Your task to perform on an android device: turn off data saver in the chrome app Image 0: 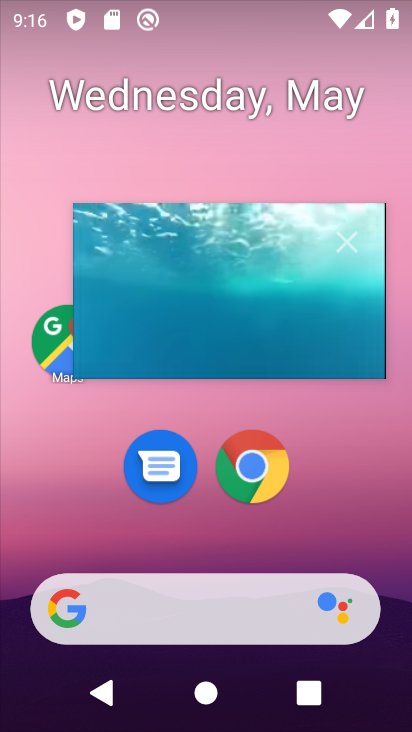
Step 0: click (343, 236)
Your task to perform on an android device: turn off data saver in the chrome app Image 1: 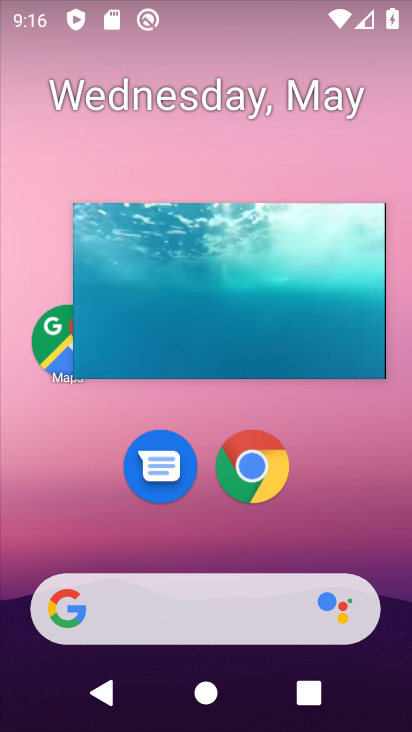
Step 1: click (343, 236)
Your task to perform on an android device: turn off data saver in the chrome app Image 2: 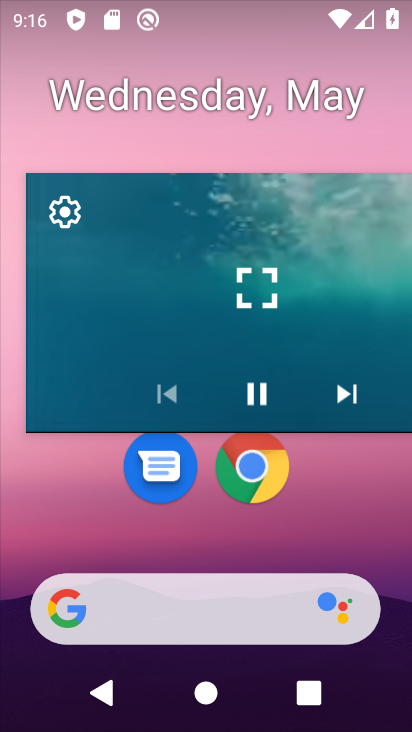
Step 2: click (128, 117)
Your task to perform on an android device: turn off data saver in the chrome app Image 3: 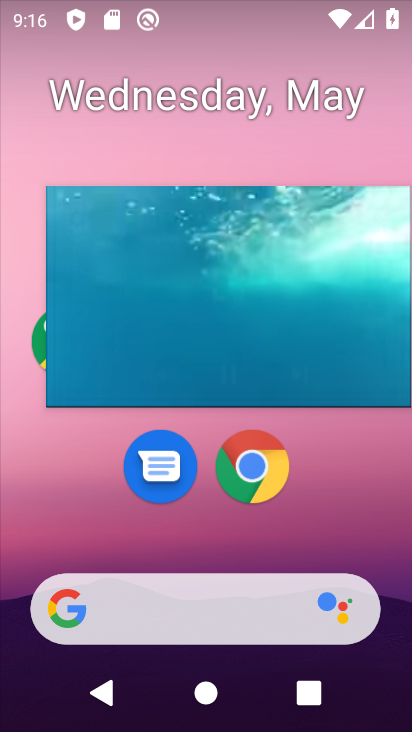
Step 3: click (128, 122)
Your task to perform on an android device: turn off data saver in the chrome app Image 4: 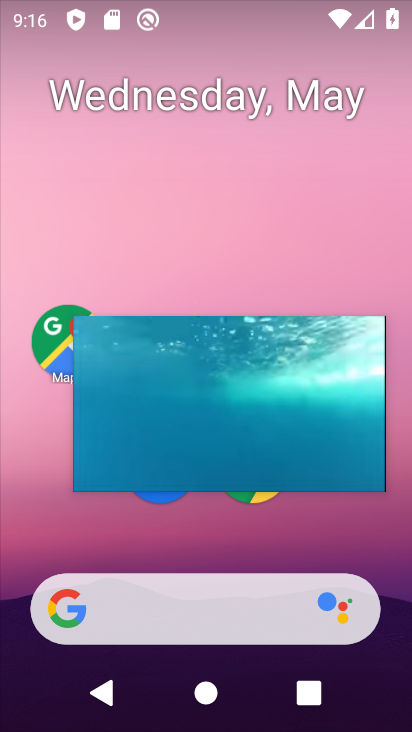
Step 4: click (130, 123)
Your task to perform on an android device: turn off data saver in the chrome app Image 5: 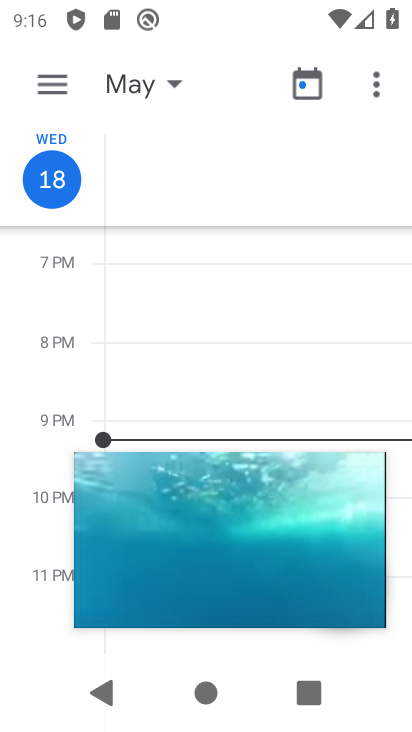
Step 5: click (363, 468)
Your task to perform on an android device: turn off data saver in the chrome app Image 6: 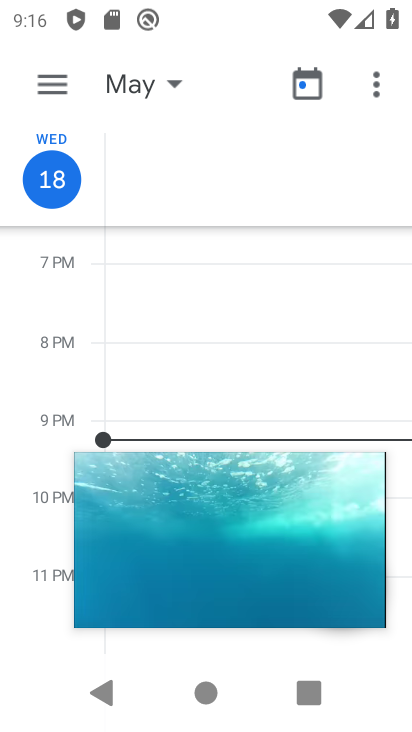
Step 6: click (366, 466)
Your task to perform on an android device: turn off data saver in the chrome app Image 7: 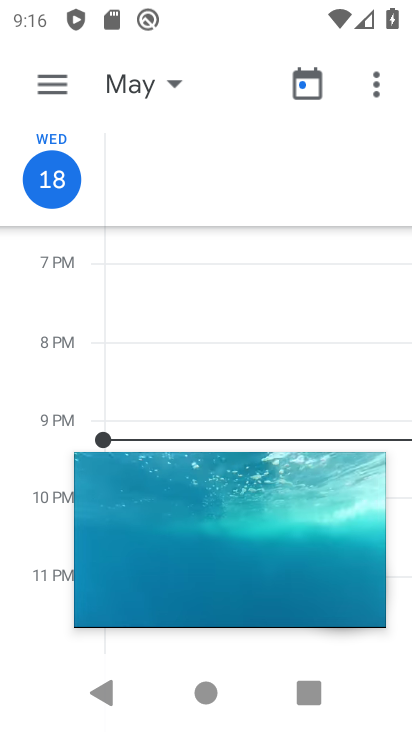
Step 7: click (204, 551)
Your task to perform on an android device: turn off data saver in the chrome app Image 8: 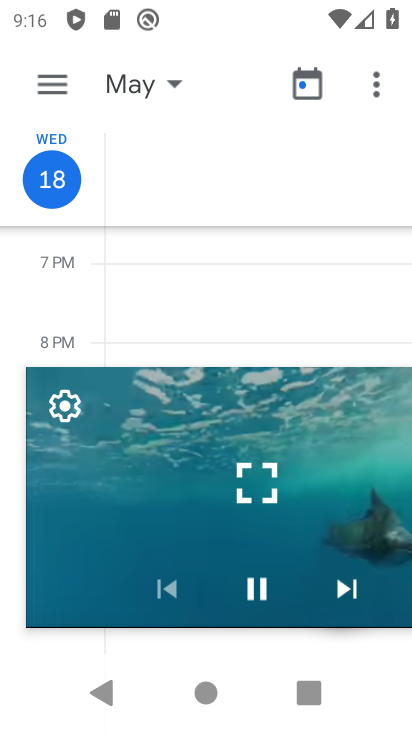
Step 8: click (319, 394)
Your task to perform on an android device: turn off data saver in the chrome app Image 9: 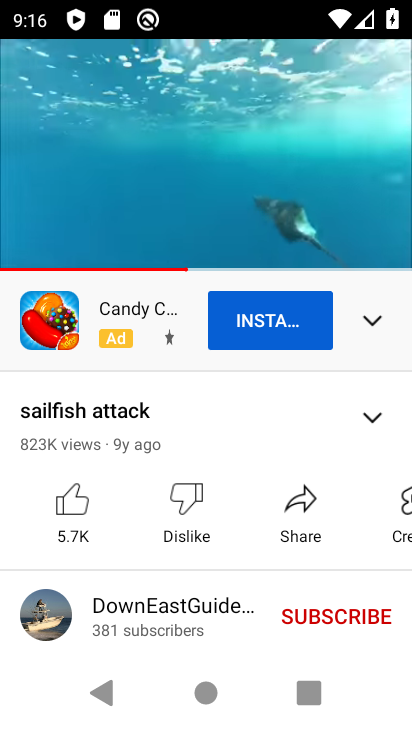
Step 9: press back button
Your task to perform on an android device: turn off data saver in the chrome app Image 10: 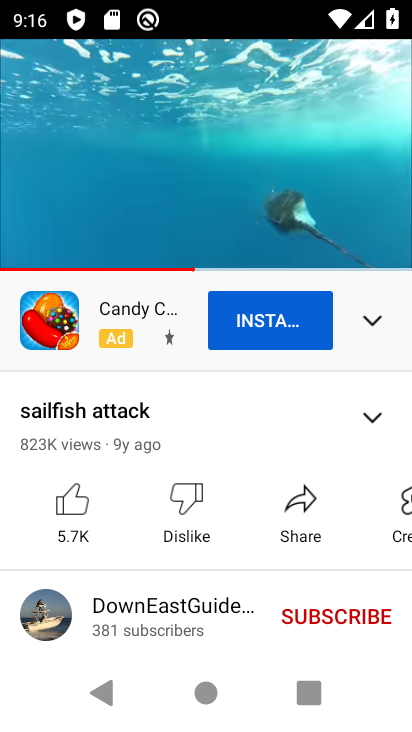
Step 10: press back button
Your task to perform on an android device: turn off data saver in the chrome app Image 11: 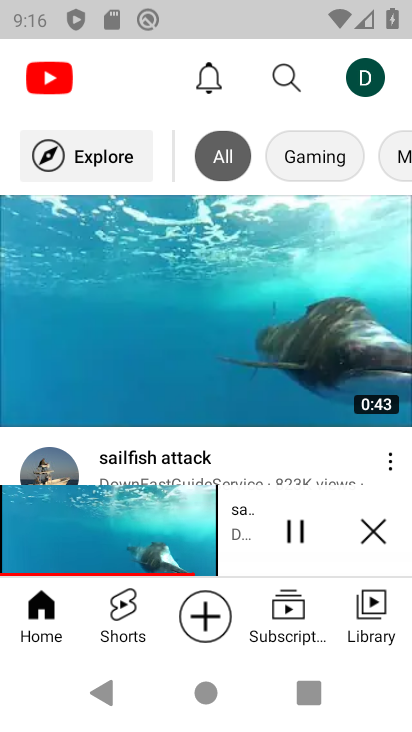
Step 11: press back button
Your task to perform on an android device: turn off data saver in the chrome app Image 12: 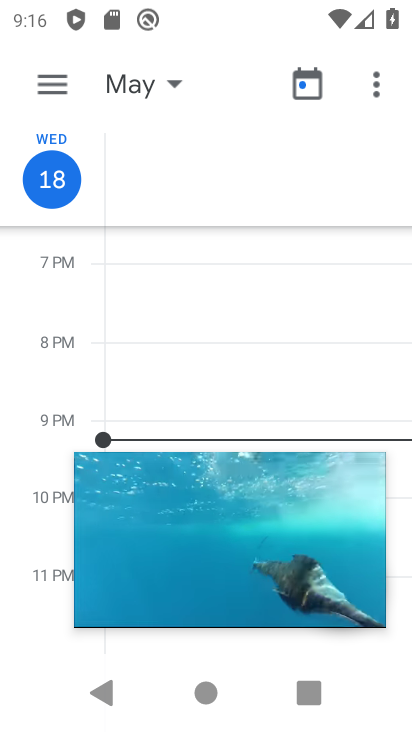
Step 12: click (233, 418)
Your task to perform on an android device: turn off data saver in the chrome app Image 13: 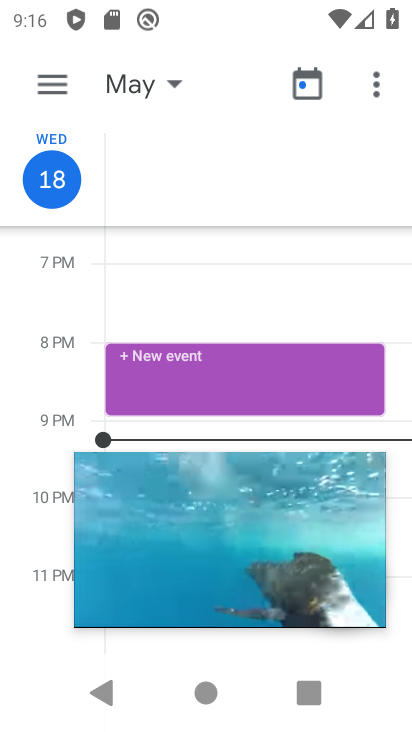
Step 13: click (348, 467)
Your task to perform on an android device: turn off data saver in the chrome app Image 14: 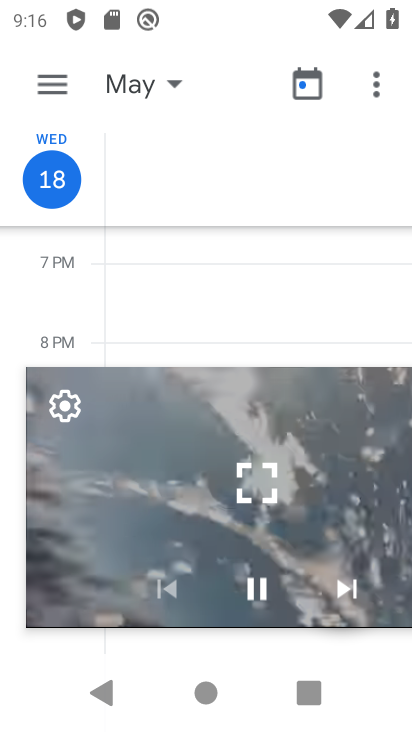
Step 14: click (395, 396)
Your task to perform on an android device: turn off data saver in the chrome app Image 15: 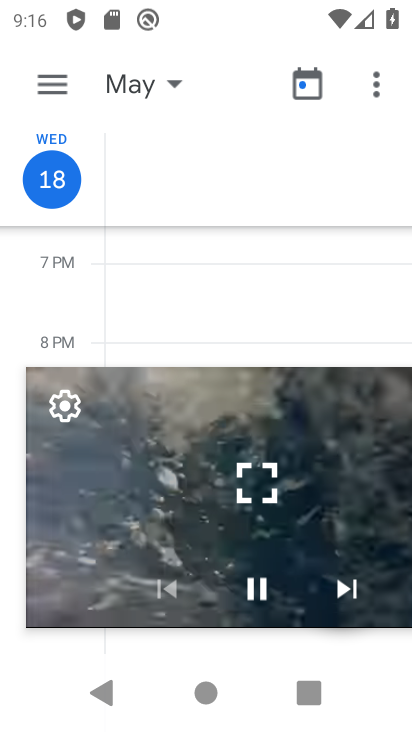
Step 15: click (393, 397)
Your task to perform on an android device: turn off data saver in the chrome app Image 16: 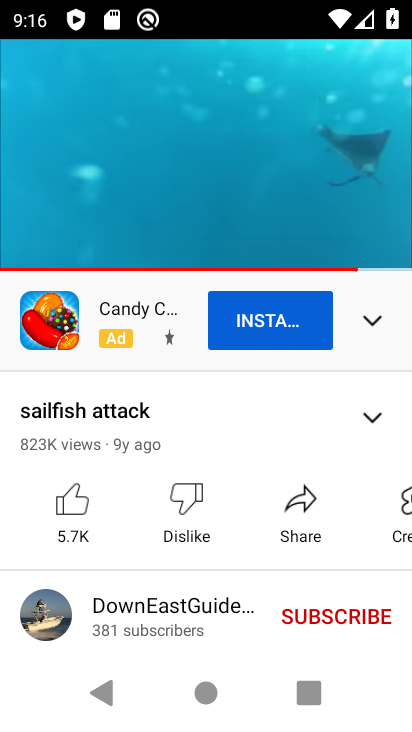
Step 16: press home button
Your task to perform on an android device: turn off data saver in the chrome app Image 17: 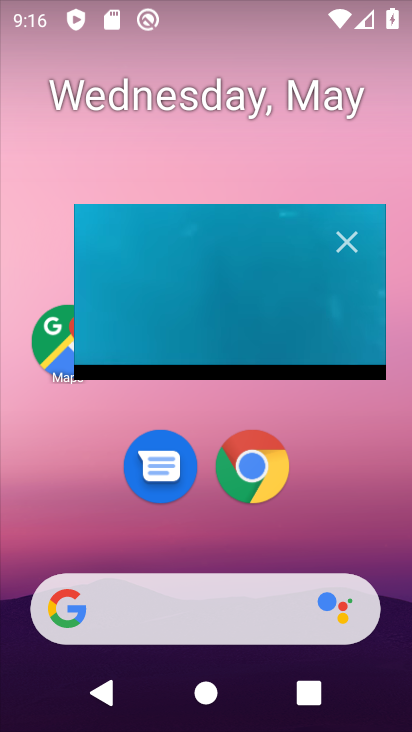
Step 17: click (318, 80)
Your task to perform on an android device: turn off data saver in the chrome app Image 18: 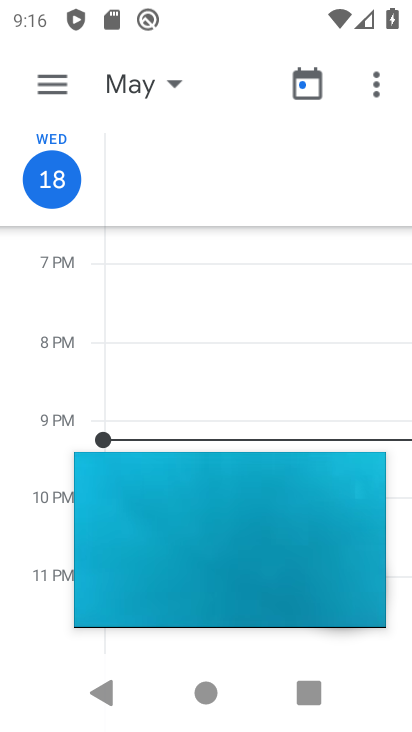
Step 18: click (345, 247)
Your task to perform on an android device: turn off data saver in the chrome app Image 19: 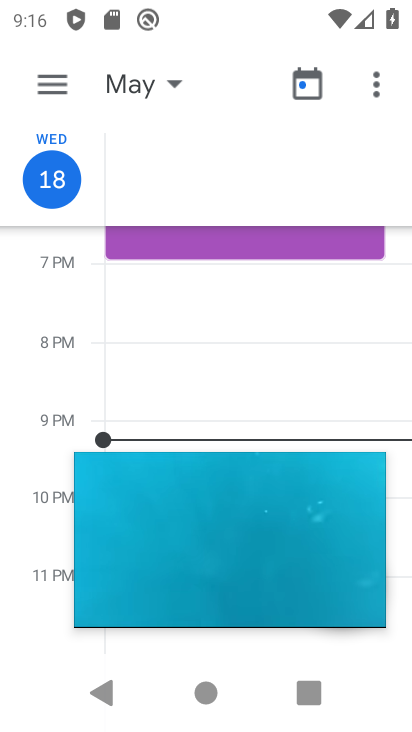
Step 19: click (361, 472)
Your task to perform on an android device: turn off data saver in the chrome app Image 20: 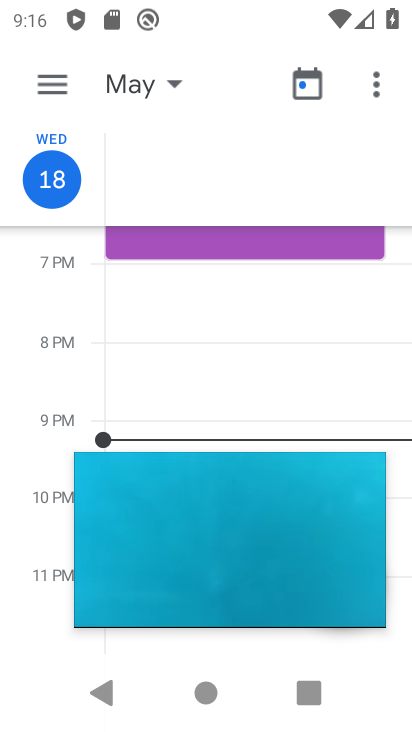
Step 20: click (362, 471)
Your task to perform on an android device: turn off data saver in the chrome app Image 21: 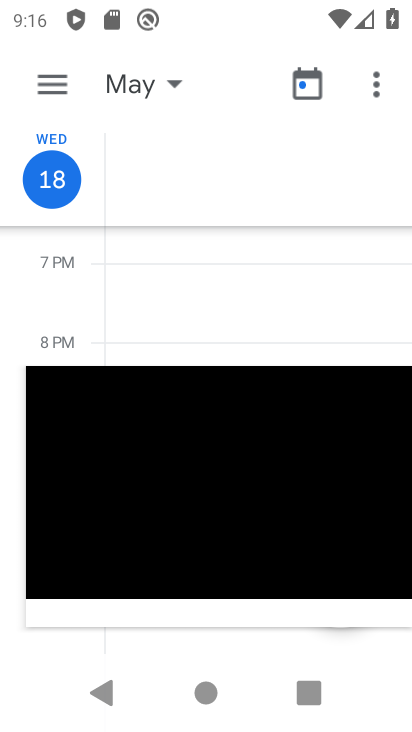
Step 21: click (362, 397)
Your task to perform on an android device: turn off data saver in the chrome app Image 22: 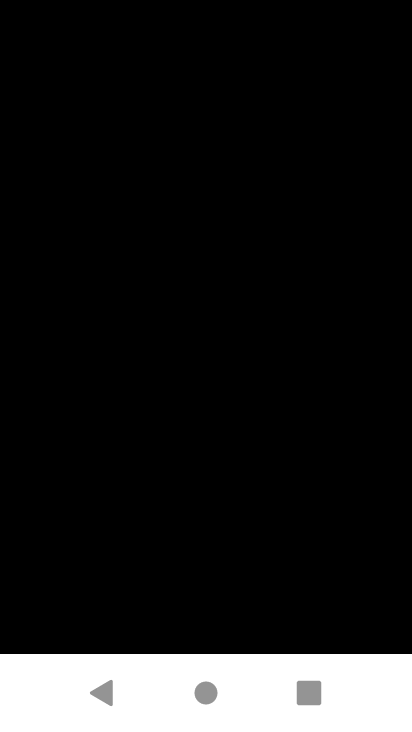
Step 22: click (362, 397)
Your task to perform on an android device: turn off data saver in the chrome app Image 23: 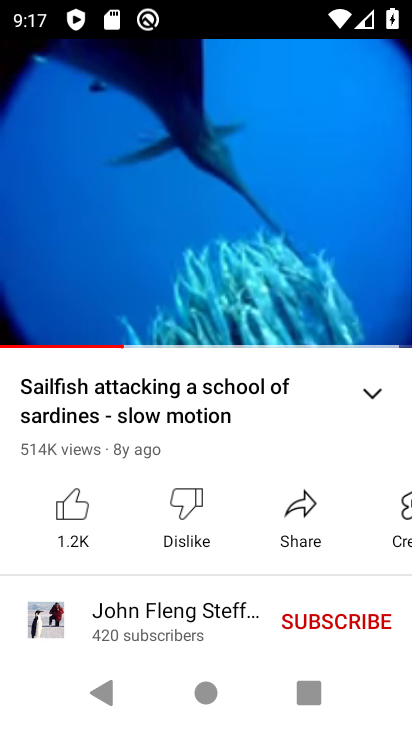
Step 23: click (235, 273)
Your task to perform on an android device: turn off data saver in the chrome app Image 24: 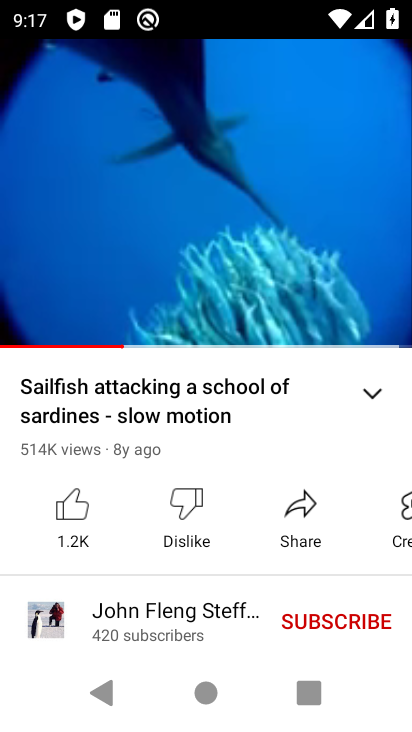
Step 24: click (238, 216)
Your task to perform on an android device: turn off data saver in the chrome app Image 25: 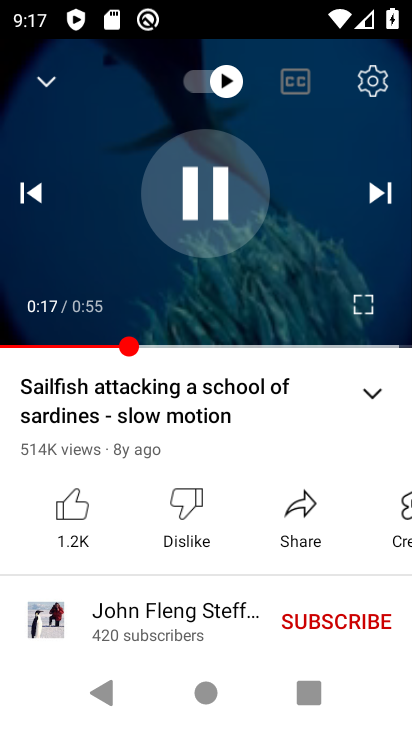
Step 25: click (237, 215)
Your task to perform on an android device: turn off data saver in the chrome app Image 26: 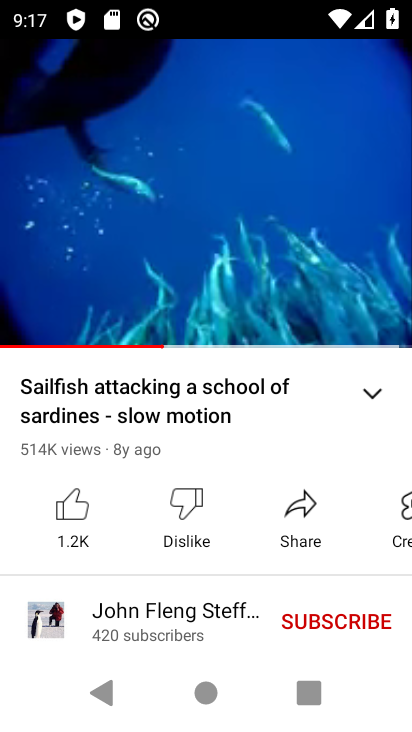
Step 26: press back button
Your task to perform on an android device: turn off data saver in the chrome app Image 27: 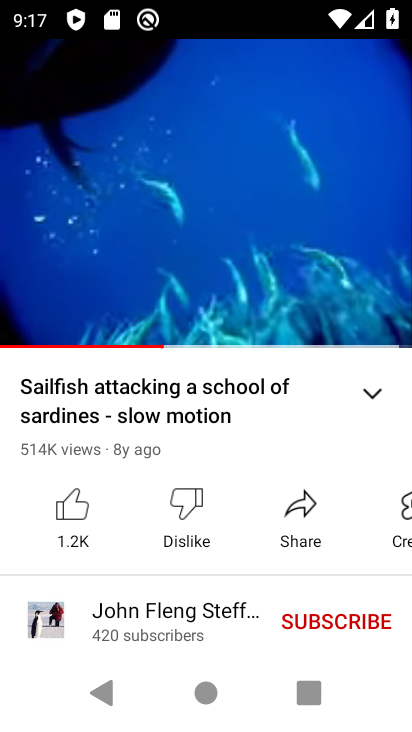
Step 27: press back button
Your task to perform on an android device: turn off data saver in the chrome app Image 28: 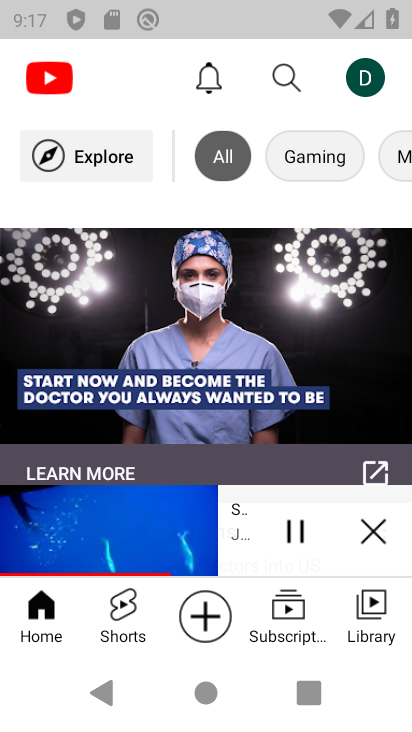
Step 28: press back button
Your task to perform on an android device: turn off data saver in the chrome app Image 29: 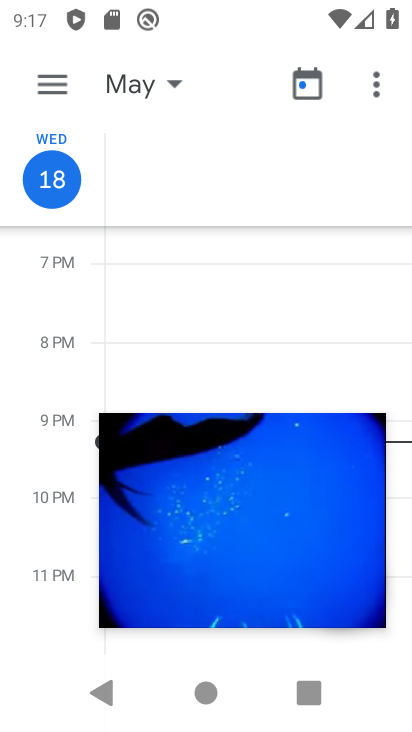
Step 29: click (359, 548)
Your task to perform on an android device: turn off data saver in the chrome app Image 30: 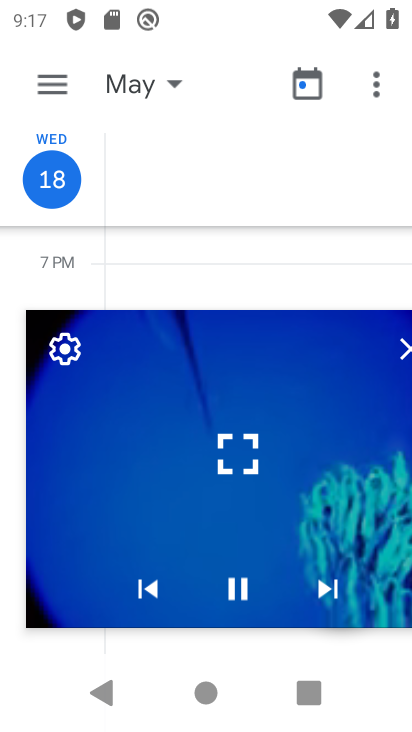
Step 30: click (409, 340)
Your task to perform on an android device: turn off data saver in the chrome app Image 31: 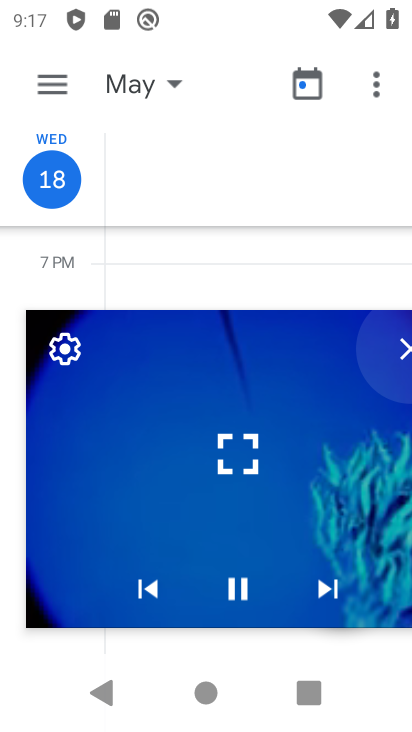
Step 31: click (408, 340)
Your task to perform on an android device: turn off data saver in the chrome app Image 32: 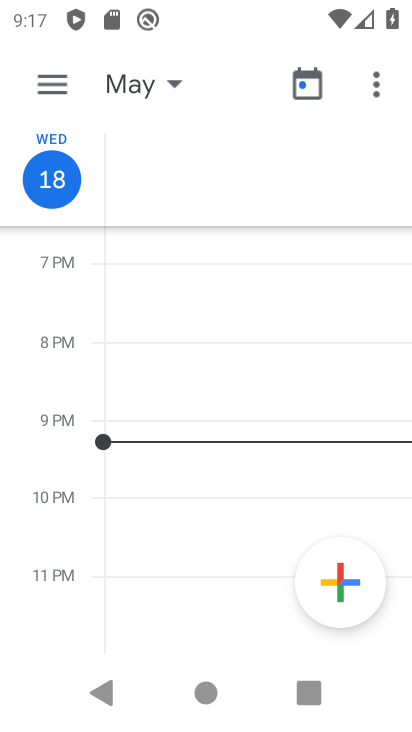
Step 32: press back button
Your task to perform on an android device: turn off data saver in the chrome app Image 33: 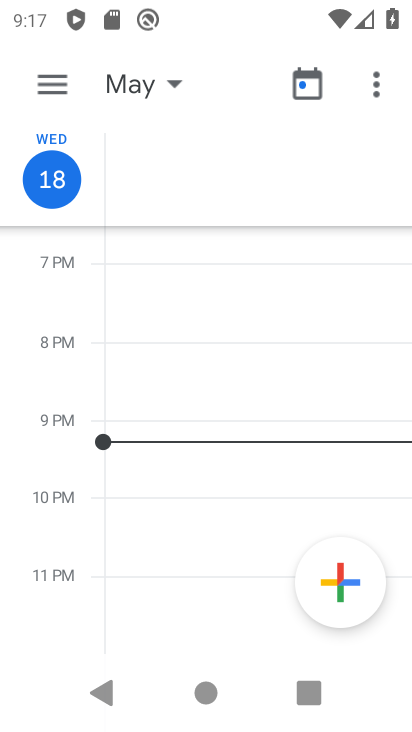
Step 33: press back button
Your task to perform on an android device: turn off data saver in the chrome app Image 34: 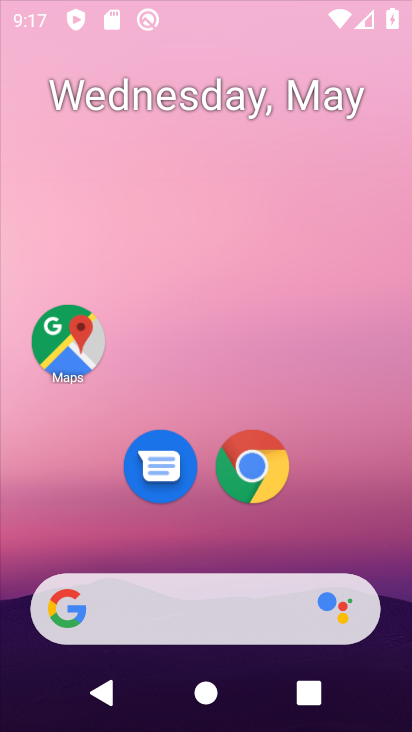
Step 34: press back button
Your task to perform on an android device: turn off data saver in the chrome app Image 35: 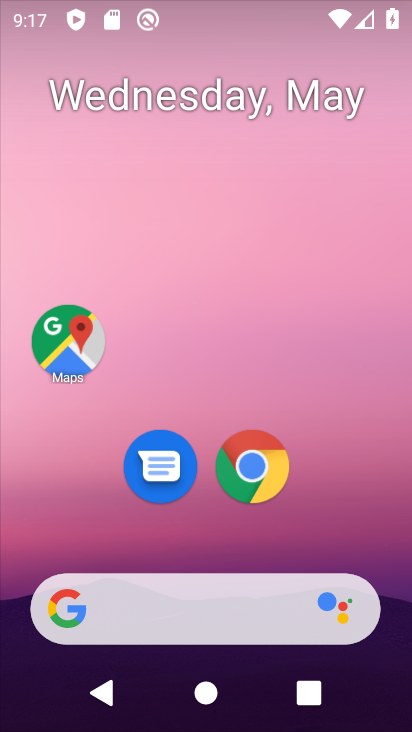
Step 35: press back button
Your task to perform on an android device: turn off data saver in the chrome app Image 36: 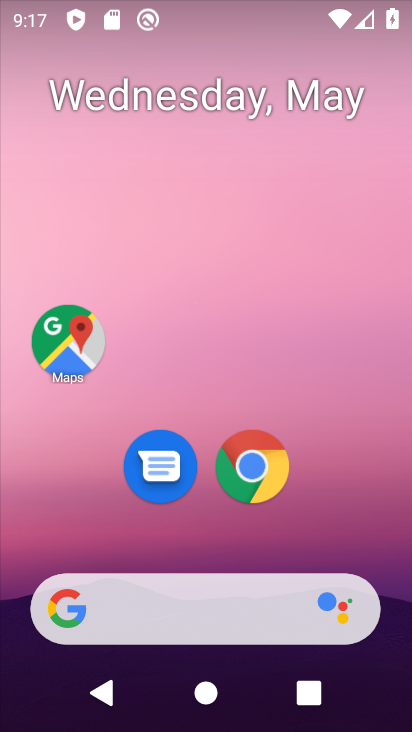
Step 36: drag from (358, 657) to (183, 101)
Your task to perform on an android device: turn off data saver in the chrome app Image 37: 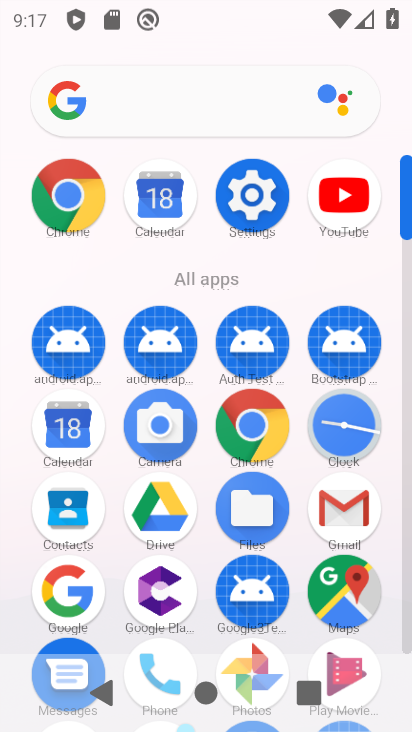
Step 37: click (264, 425)
Your task to perform on an android device: turn off data saver in the chrome app Image 38: 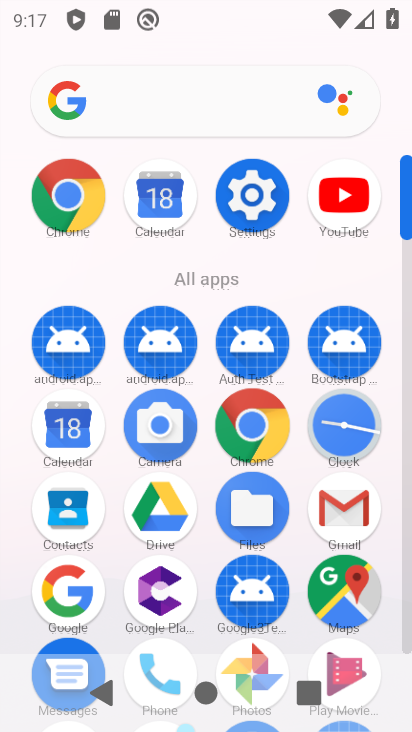
Step 38: click (263, 425)
Your task to perform on an android device: turn off data saver in the chrome app Image 39: 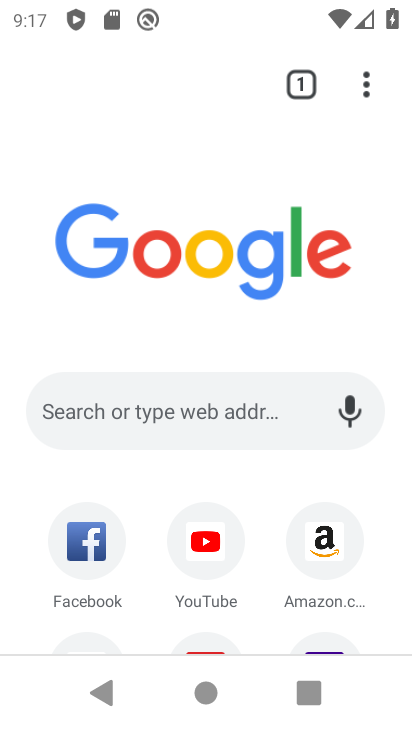
Step 39: click (362, 85)
Your task to perform on an android device: turn off data saver in the chrome app Image 40: 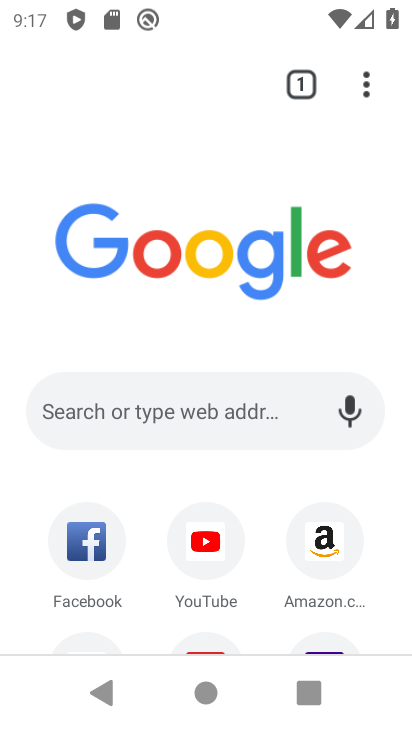
Step 40: drag from (364, 85) to (92, 525)
Your task to perform on an android device: turn off data saver in the chrome app Image 41: 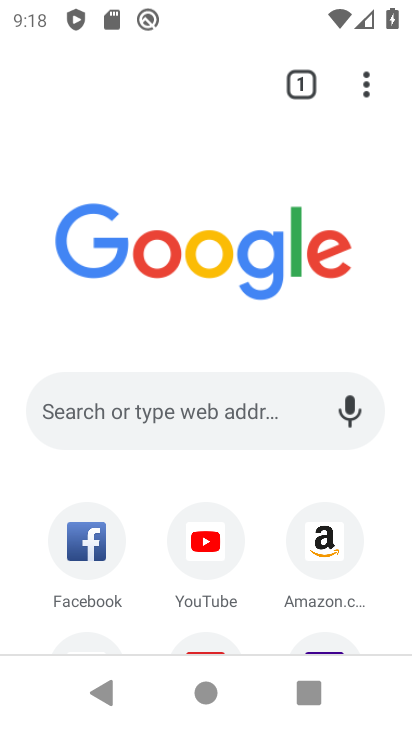
Step 41: click (88, 523)
Your task to perform on an android device: turn off data saver in the chrome app Image 42: 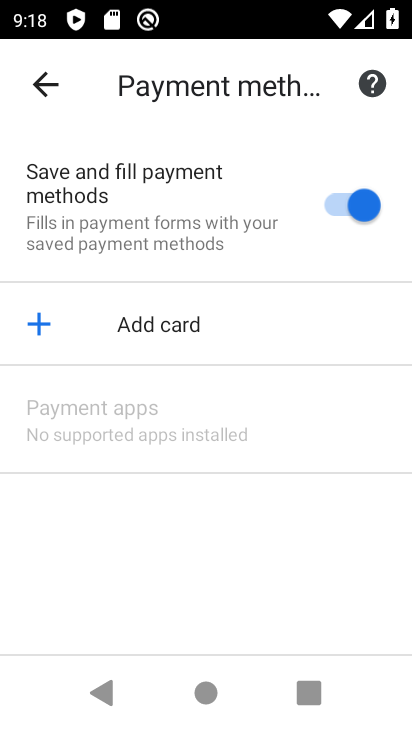
Step 42: click (44, 80)
Your task to perform on an android device: turn off data saver in the chrome app Image 43: 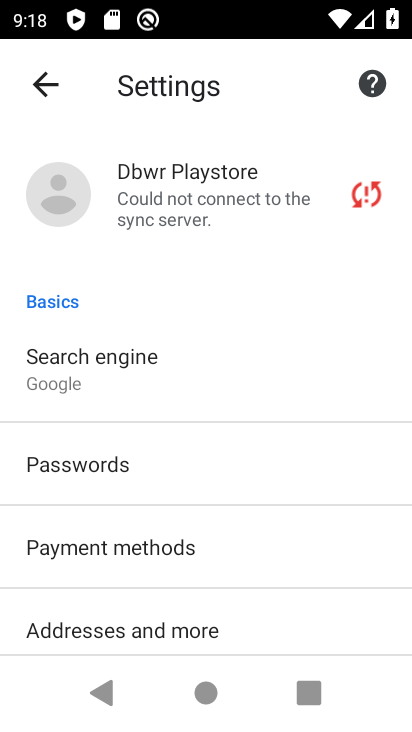
Step 43: drag from (123, 507) to (95, 65)
Your task to perform on an android device: turn off data saver in the chrome app Image 44: 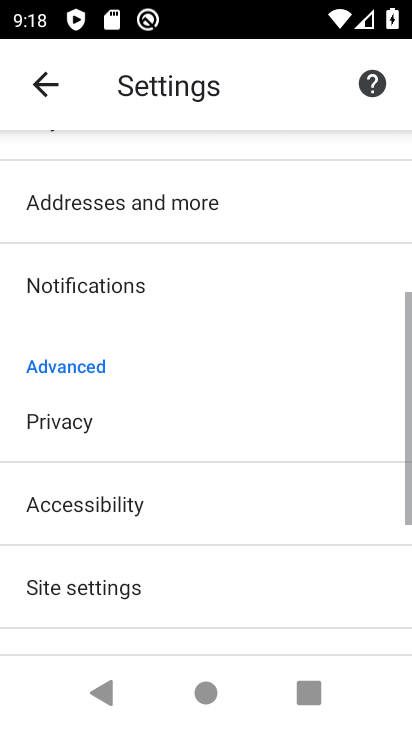
Step 44: drag from (159, 443) to (71, 32)
Your task to perform on an android device: turn off data saver in the chrome app Image 45: 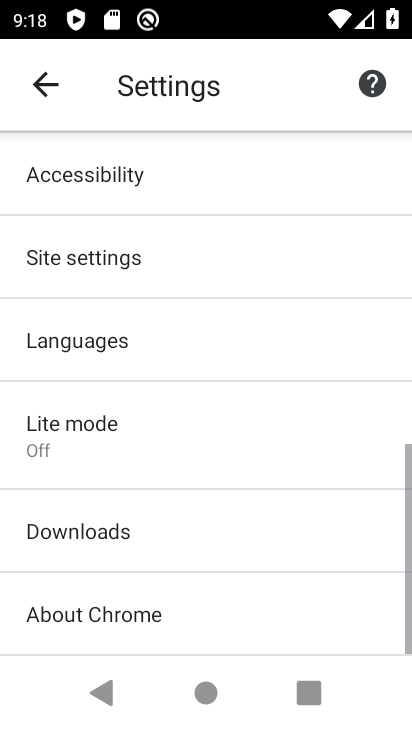
Step 45: drag from (174, 484) to (159, 212)
Your task to perform on an android device: turn off data saver in the chrome app Image 46: 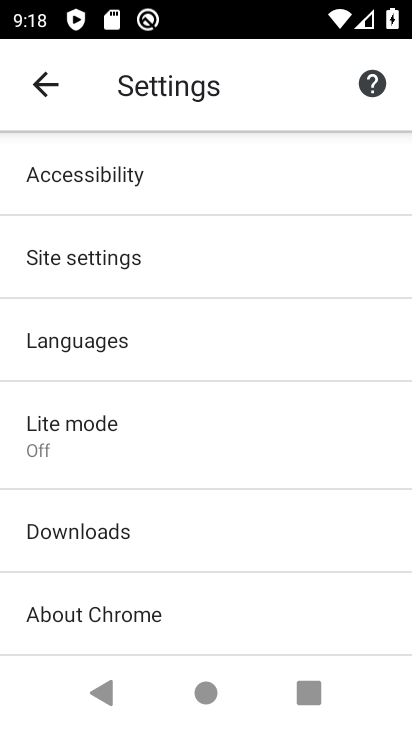
Step 46: drag from (82, 248) to (135, 472)
Your task to perform on an android device: turn off data saver in the chrome app Image 47: 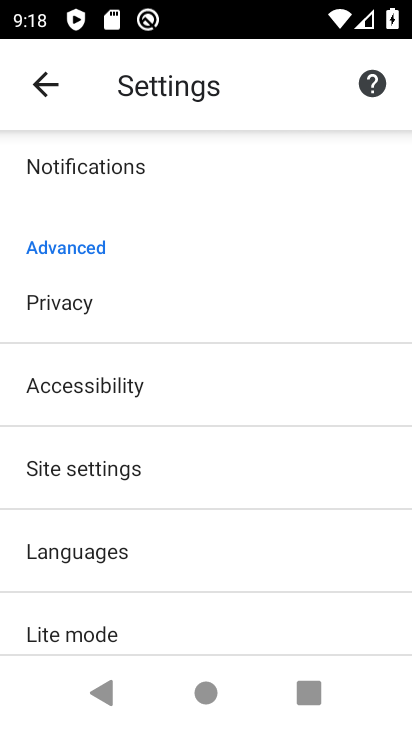
Step 47: drag from (77, 330) to (107, 561)
Your task to perform on an android device: turn off data saver in the chrome app Image 48: 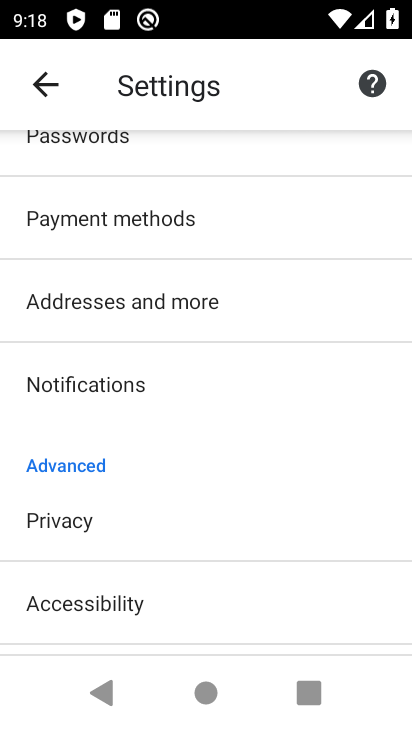
Step 48: drag from (99, 275) to (171, 620)
Your task to perform on an android device: turn off data saver in the chrome app Image 49: 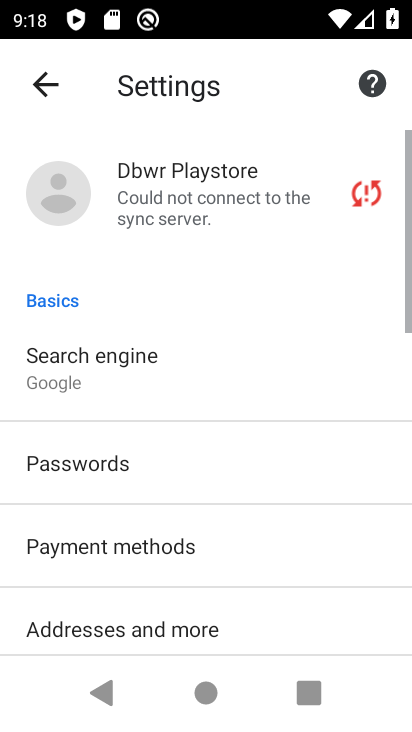
Step 49: drag from (130, 293) to (181, 542)
Your task to perform on an android device: turn off data saver in the chrome app Image 50: 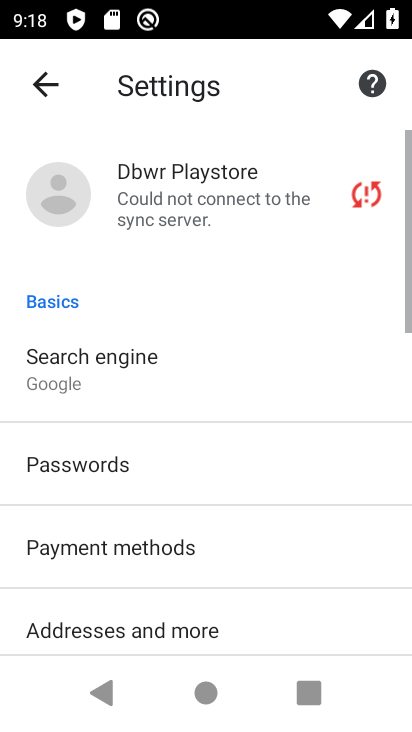
Step 50: drag from (118, 472) to (56, 155)
Your task to perform on an android device: turn off data saver in the chrome app Image 51: 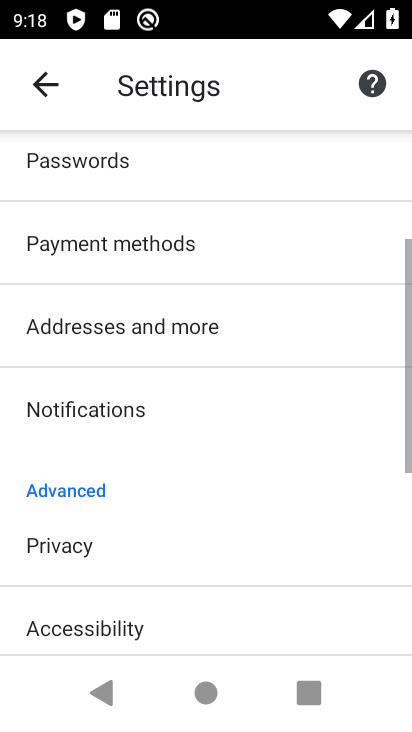
Step 51: drag from (128, 477) to (109, 118)
Your task to perform on an android device: turn off data saver in the chrome app Image 52: 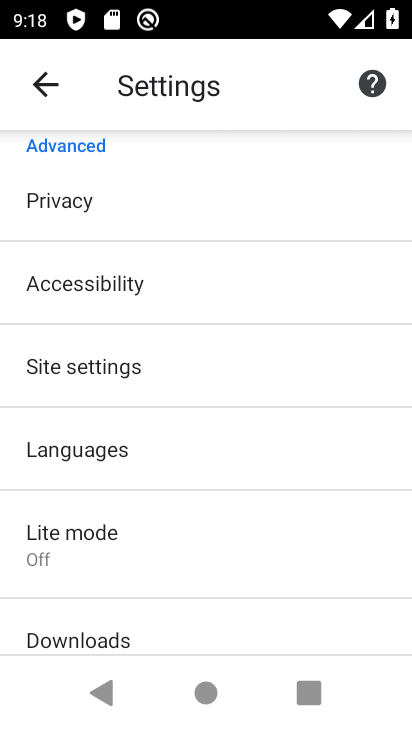
Step 52: click (57, 368)
Your task to perform on an android device: turn off data saver in the chrome app Image 53: 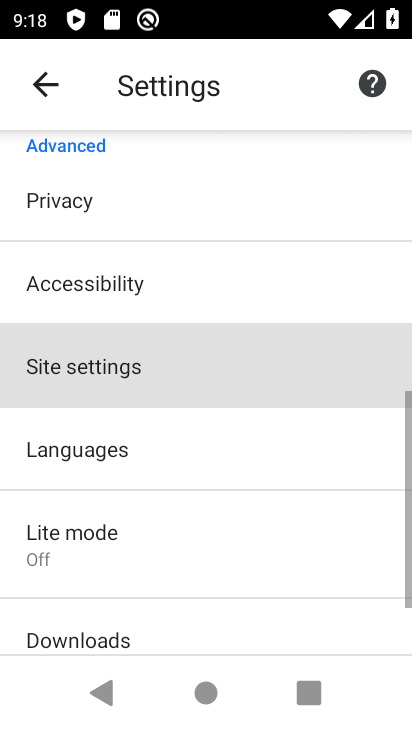
Step 53: click (58, 367)
Your task to perform on an android device: turn off data saver in the chrome app Image 54: 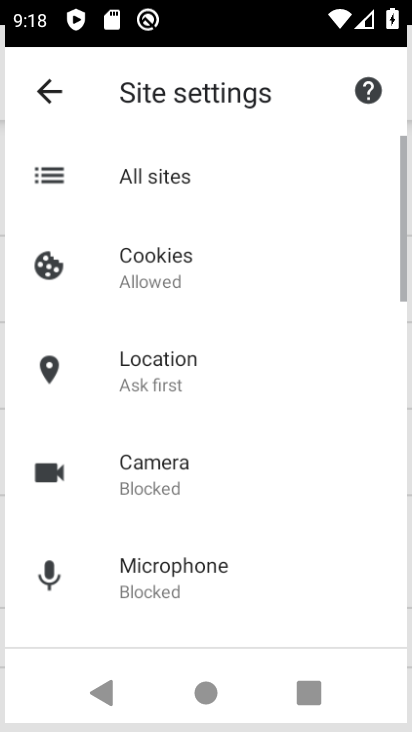
Step 54: click (58, 367)
Your task to perform on an android device: turn off data saver in the chrome app Image 55: 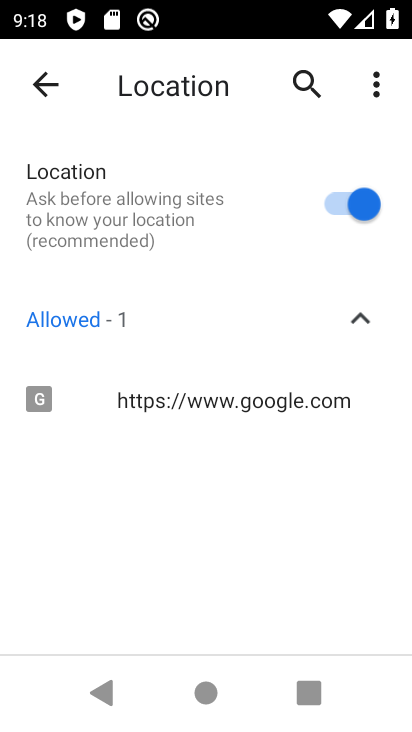
Step 55: click (40, 73)
Your task to perform on an android device: turn off data saver in the chrome app Image 56: 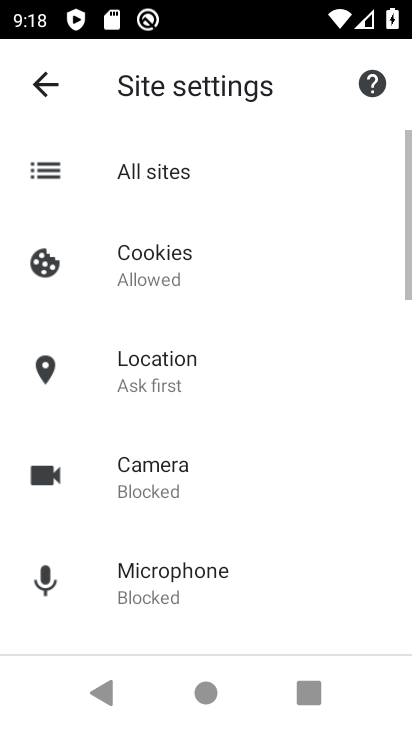
Step 56: click (40, 73)
Your task to perform on an android device: turn off data saver in the chrome app Image 57: 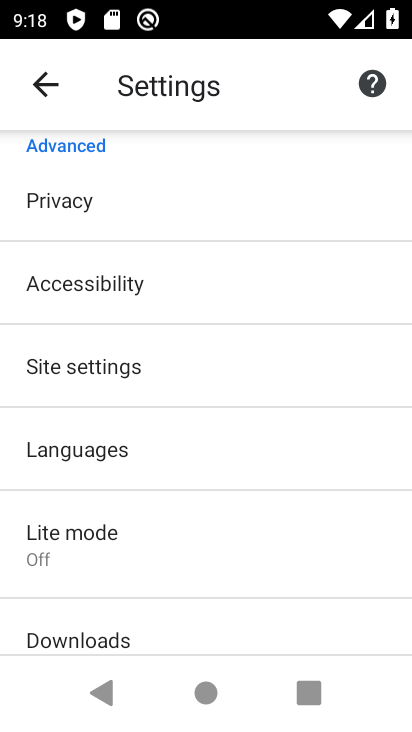
Step 57: click (71, 529)
Your task to perform on an android device: turn off data saver in the chrome app Image 58: 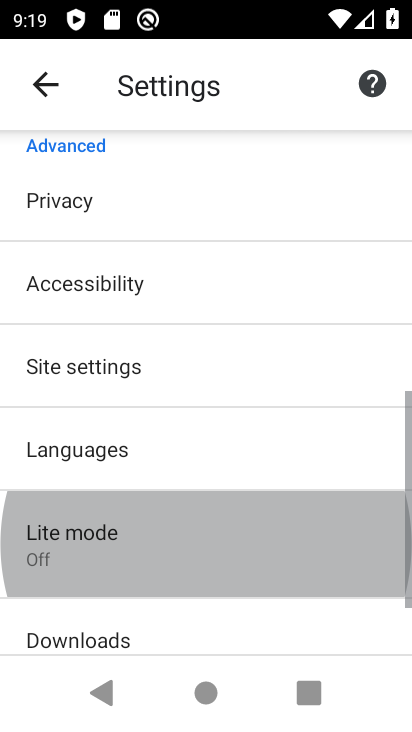
Step 58: click (71, 529)
Your task to perform on an android device: turn off data saver in the chrome app Image 59: 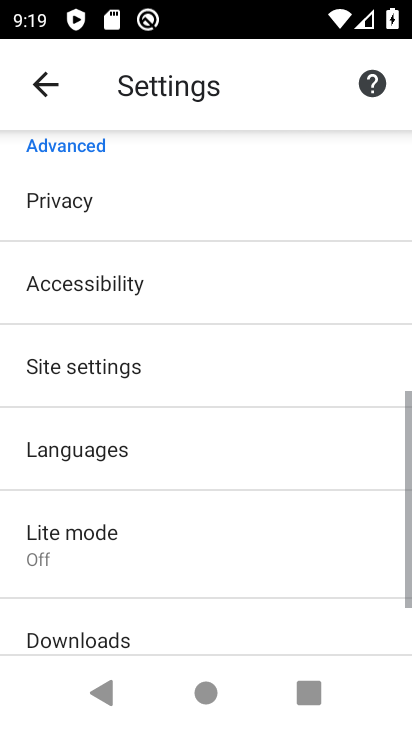
Step 59: click (73, 529)
Your task to perform on an android device: turn off data saver in the chrome app Image 60: 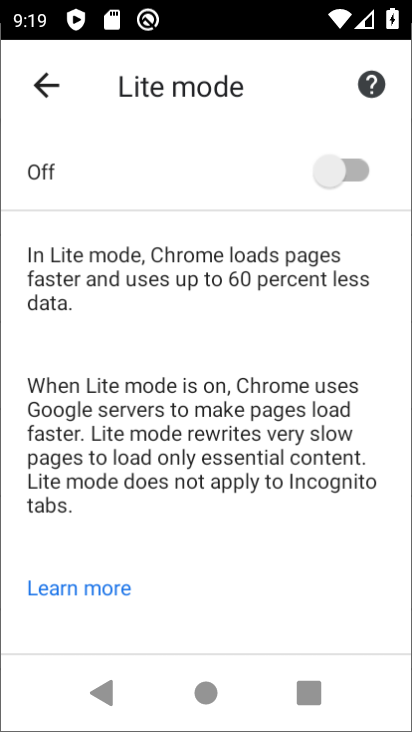
Step 60: click (76, 529)
Your task to perform on an android device: turn off data saver in the chrome app Image 61: 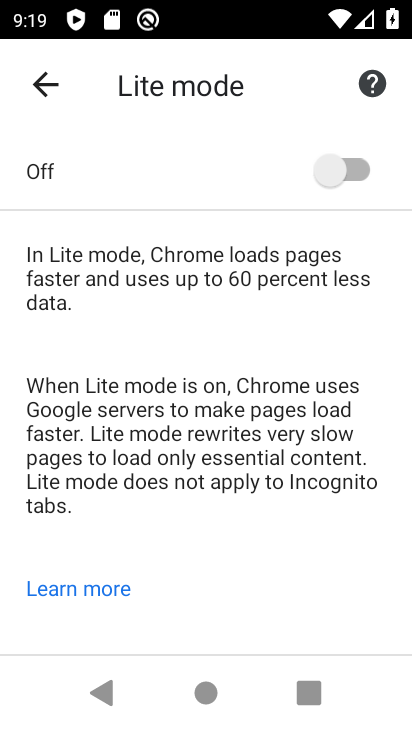
Step 61: click (333, 173)
Your task to perform on an android device: turn off data saver in the chrome app Image 62: 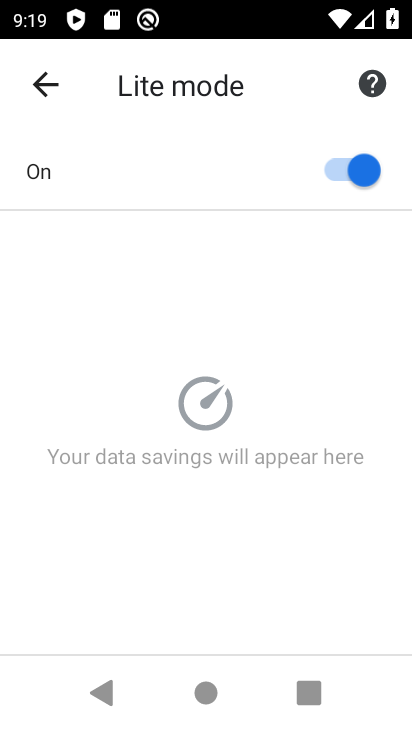
Step 62: click (360, 174)
Your task to perform on an android device: turn off data saver in the chrome app Image 63: 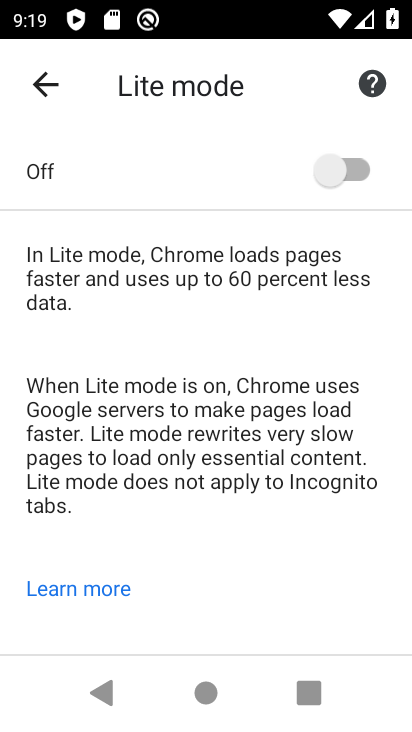
Step 63: task complete